Your task to perform on an android device: Set the phone to "Do not disturb". Image 0: 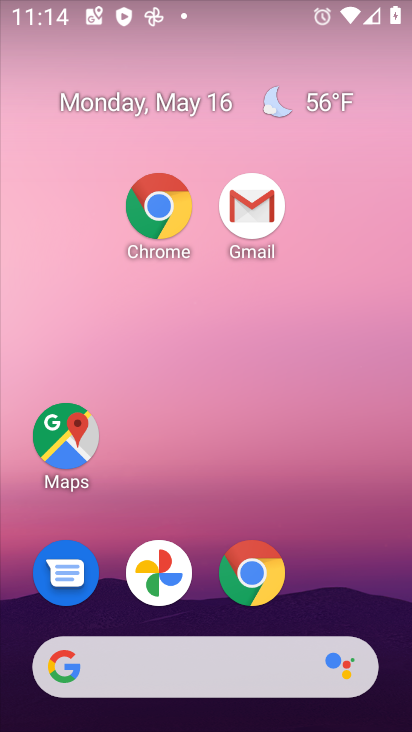
Step 0: drag from (380, 643) to (216, 160)
Your task to perform on an android device: Set the phone to "Do not disturb". Image 1: 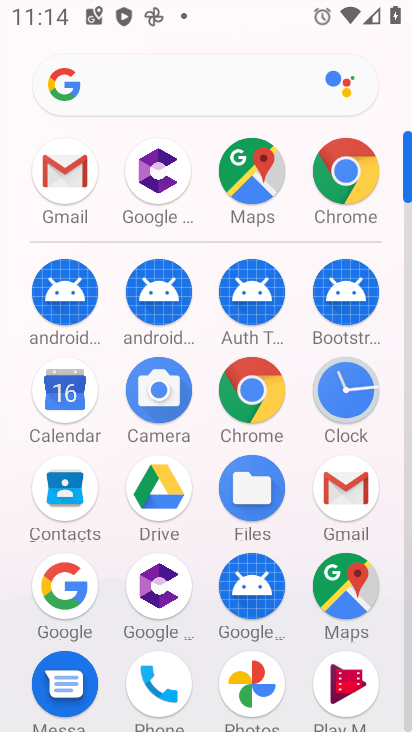
Step 1: drag from (233, 543) to (232, 20)
Your task to perform on an android device: Set the phone to "Do not disturb". Image 2: 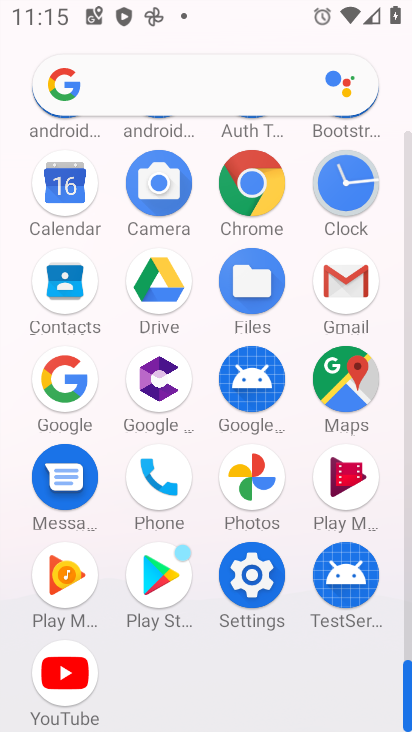
Step 2: click (248, 571)
Your task to perform on an android device: Set the phone to "Do not disturb". Image 3: 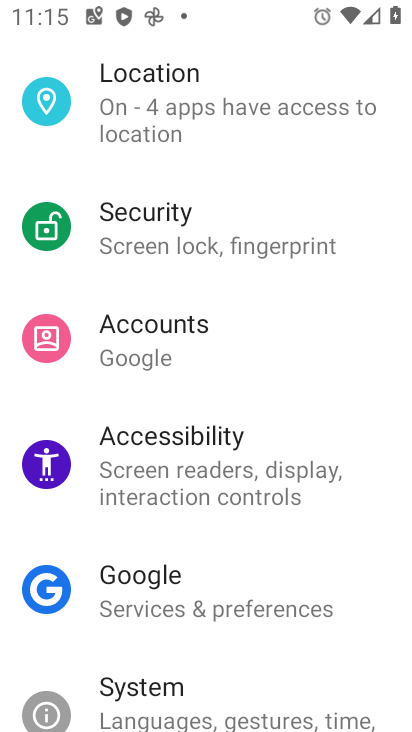
Step 3: drag from (198, 189) to (205, 471)
Your task to perform on an android device: Set the phone to "Do not disturb". Image 4: 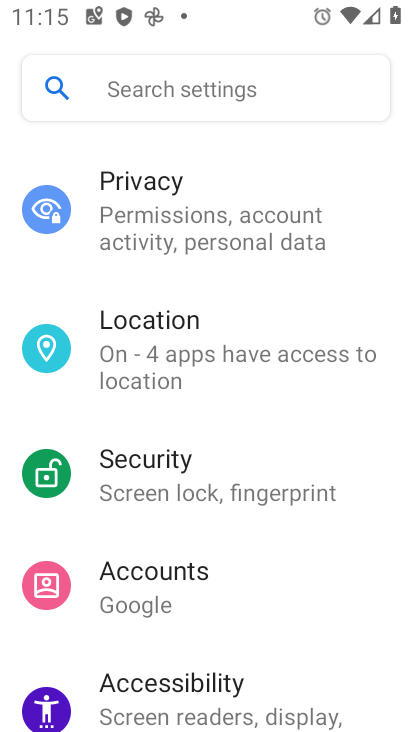
Step 4: drag from (185, 220) to (242, 516)
Your task to perform on an android device: Set the phone to "Do not disturb". Image 5: 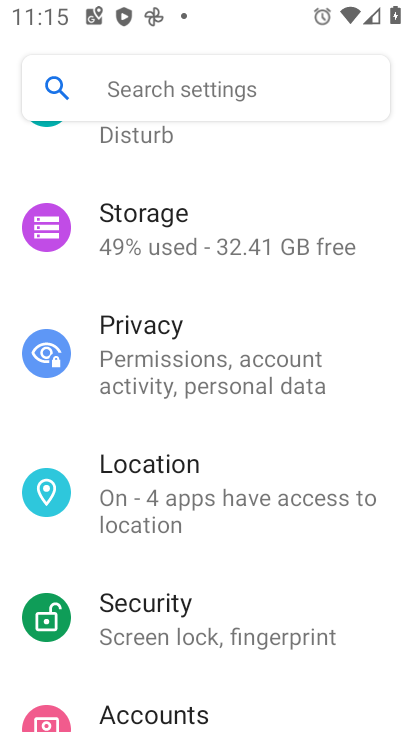
Step 5: drag from (186, 225) to (198, 589)
Your task to perform on an android device: Set the phone to "Do not disturb". Image 6: 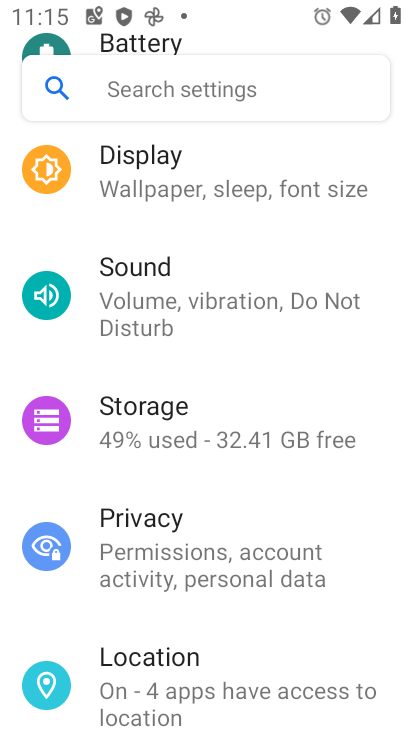
Step 6: click (162, 288)
Your task to perform on an android device: Set the phone to "Do not disturb". Image 7: 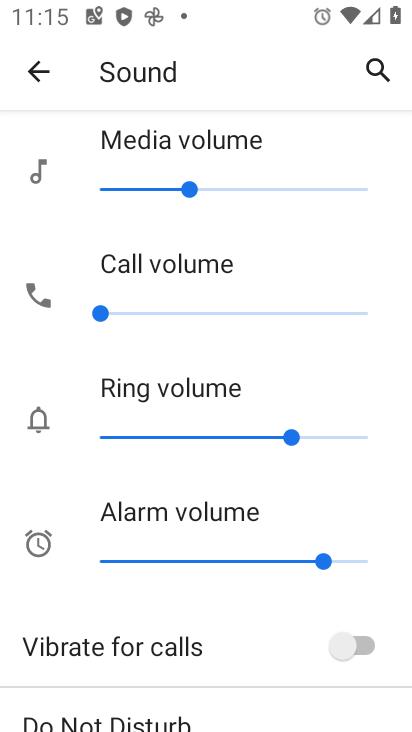
Step 7: drag from (255, 528) to (243, 98)
Your task to perform on an android device: Set the phone to "Do not disturb". Image 8: 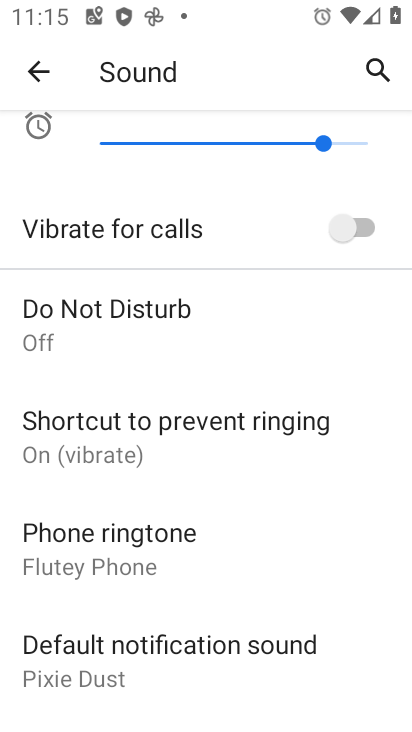
Step 8: click (79, 315)
Your task to perform on an android device: Set the phone to "Do not disturb". Image 9: 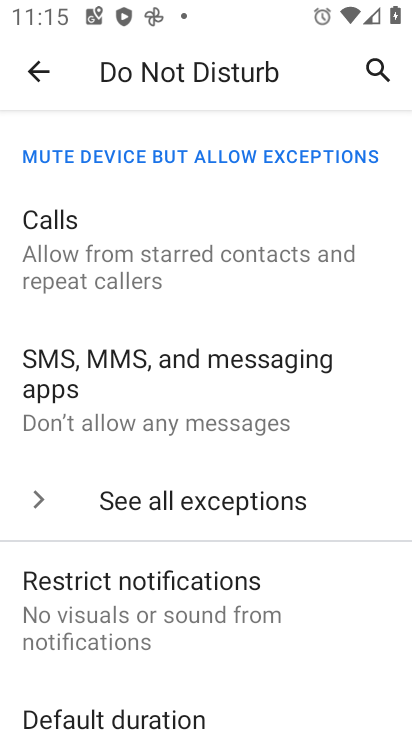
Step 9: drag from (241, 480) to (267, 200)
Your task to perform on an android device: Set the phone to "Do not disturb". Image 10: 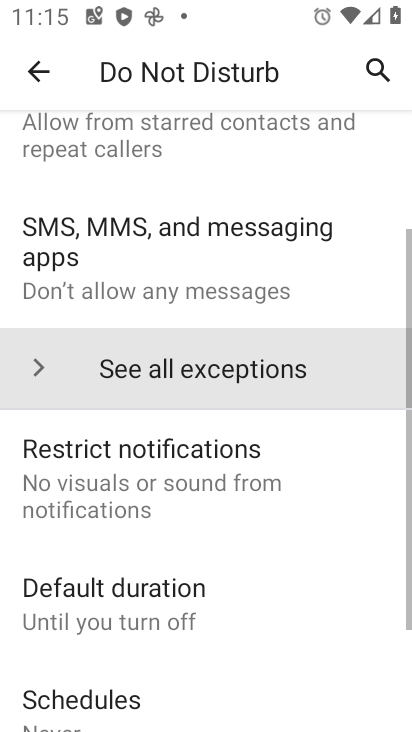
Step 10: drag from (326, 390) to (279, 116)
Your task to perform on an android device: Set the phone to "Do not disturb". Image 11: 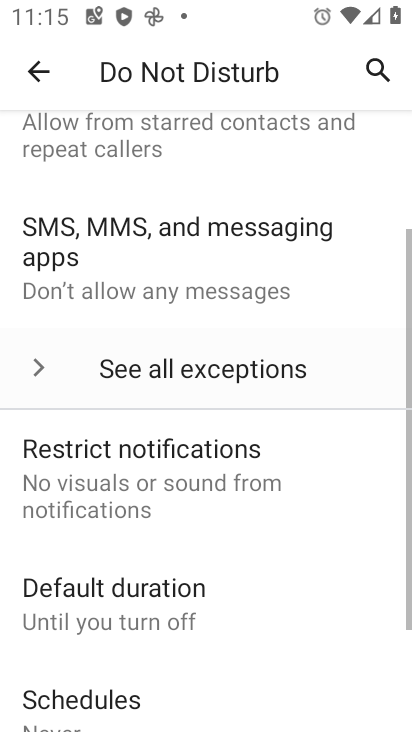
Step 11: drag from (195, 454) to (195, 169)
Your task to perform on an android device: Set the phone to "Do not disturb". Image 12: 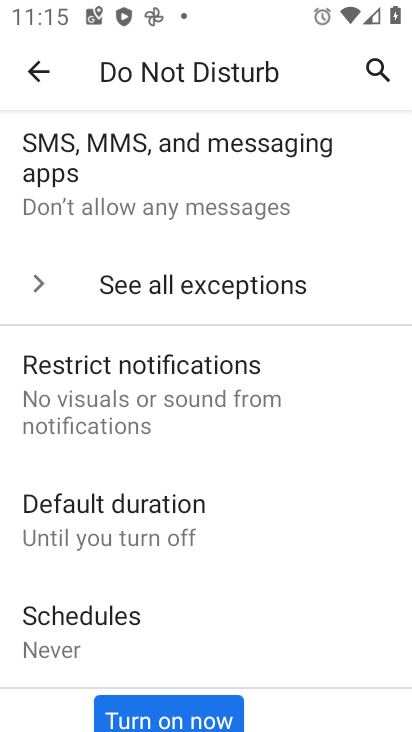
Step 12: click (158, 705)
Your task to perform on an android device: Set the phone to "Do not disturb". Image 13: 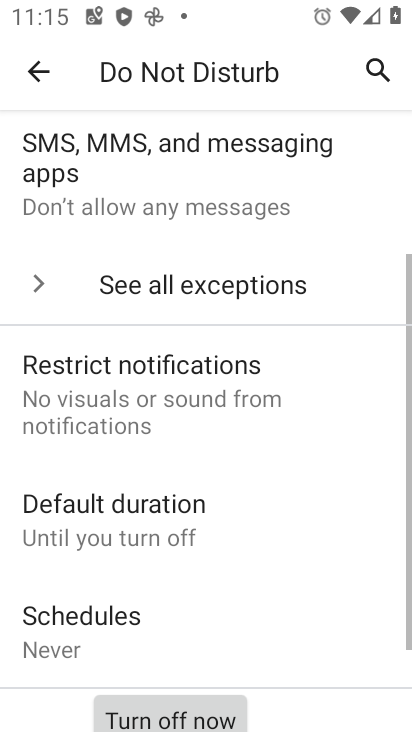
Step 13: click (168, 713)
Your task to perform on an android device: Set the phone to "Do not disturb". Image 14: 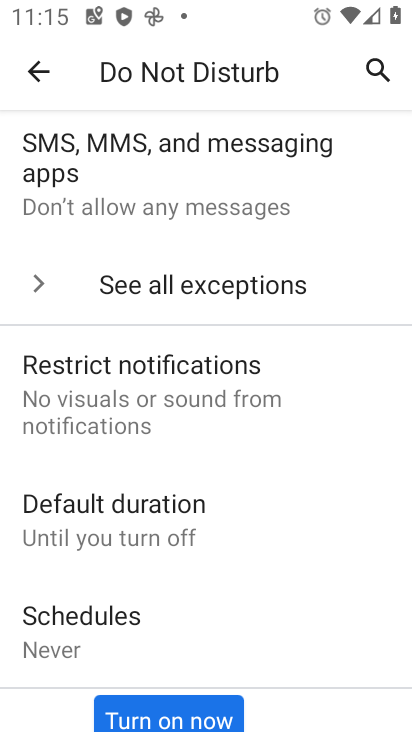
Step 14: click (169, 719)
Your task to perform on an android device: Set the phone to "Do not disturb". Image 15: 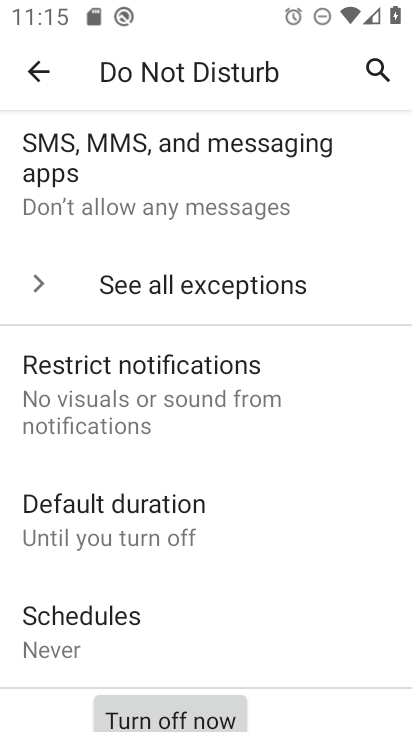
Step 15: task complete